Your task to perform on an android device: Open the stopwatch Image 0: 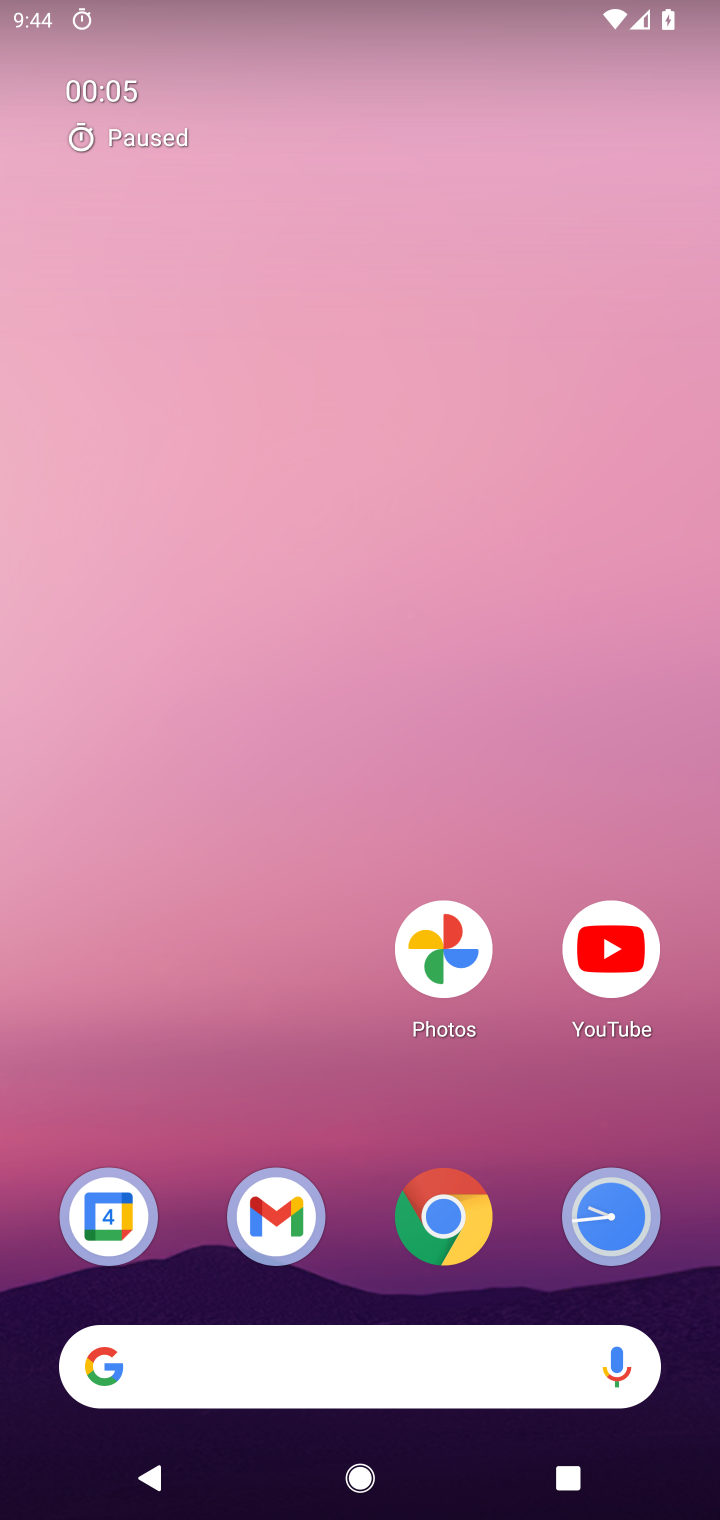
Step 0: drag from (349, 1258) to (356, 164)
Your task to perform on an android device: Open the stopwatch Image 1: 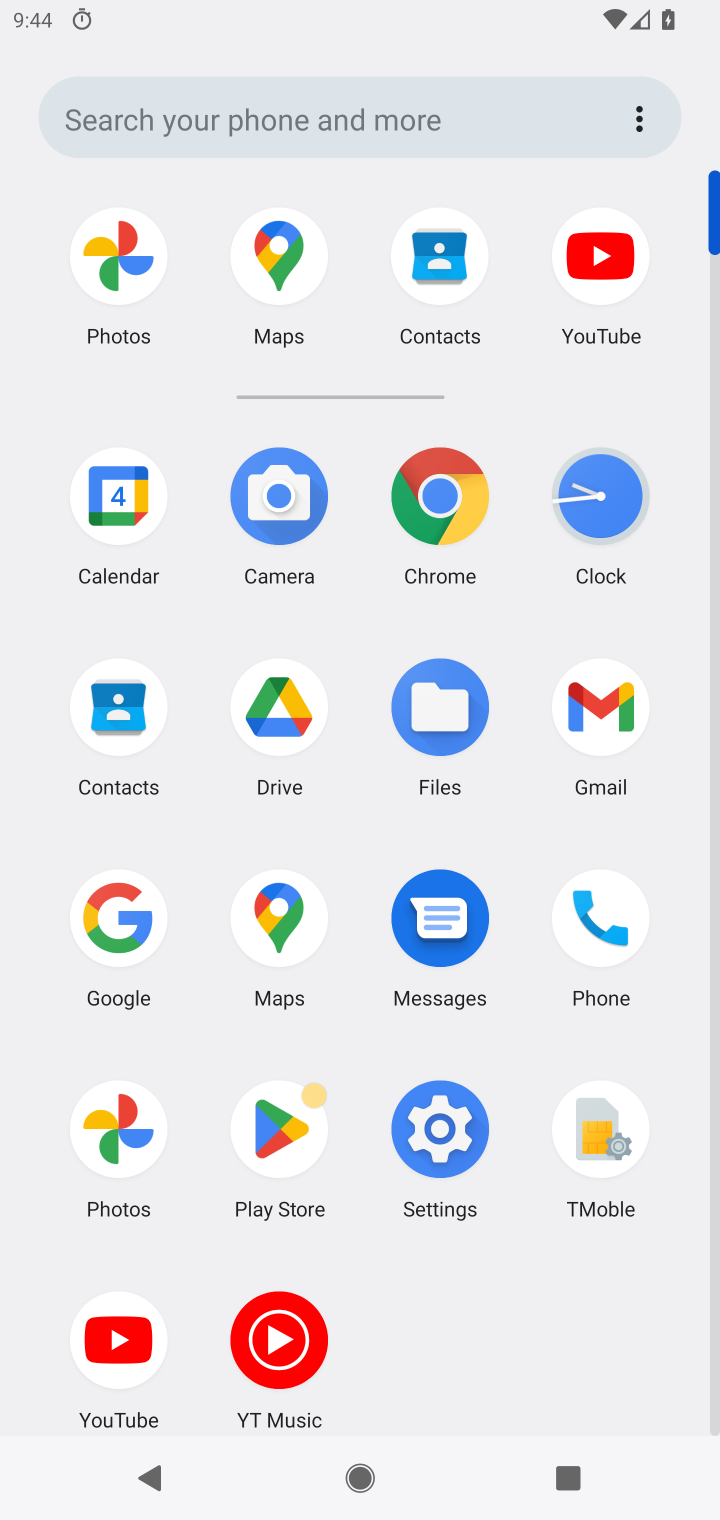
Step 1: click (585, 502)
Your task to perform on an android device: Open the stopwatch Image 2: 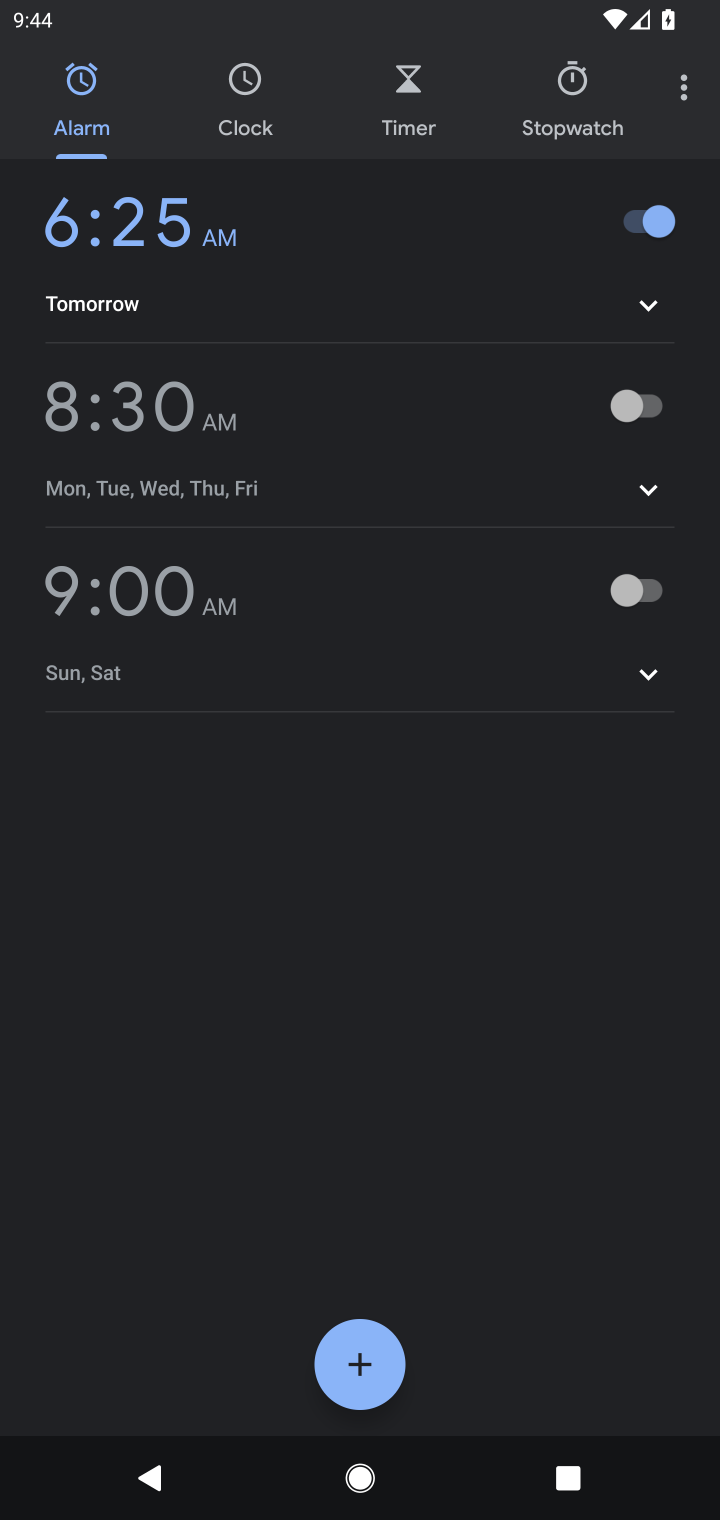
Step 2: click (570, 119)
Your task to perform on an android device: Open the stopwatch Image 3: 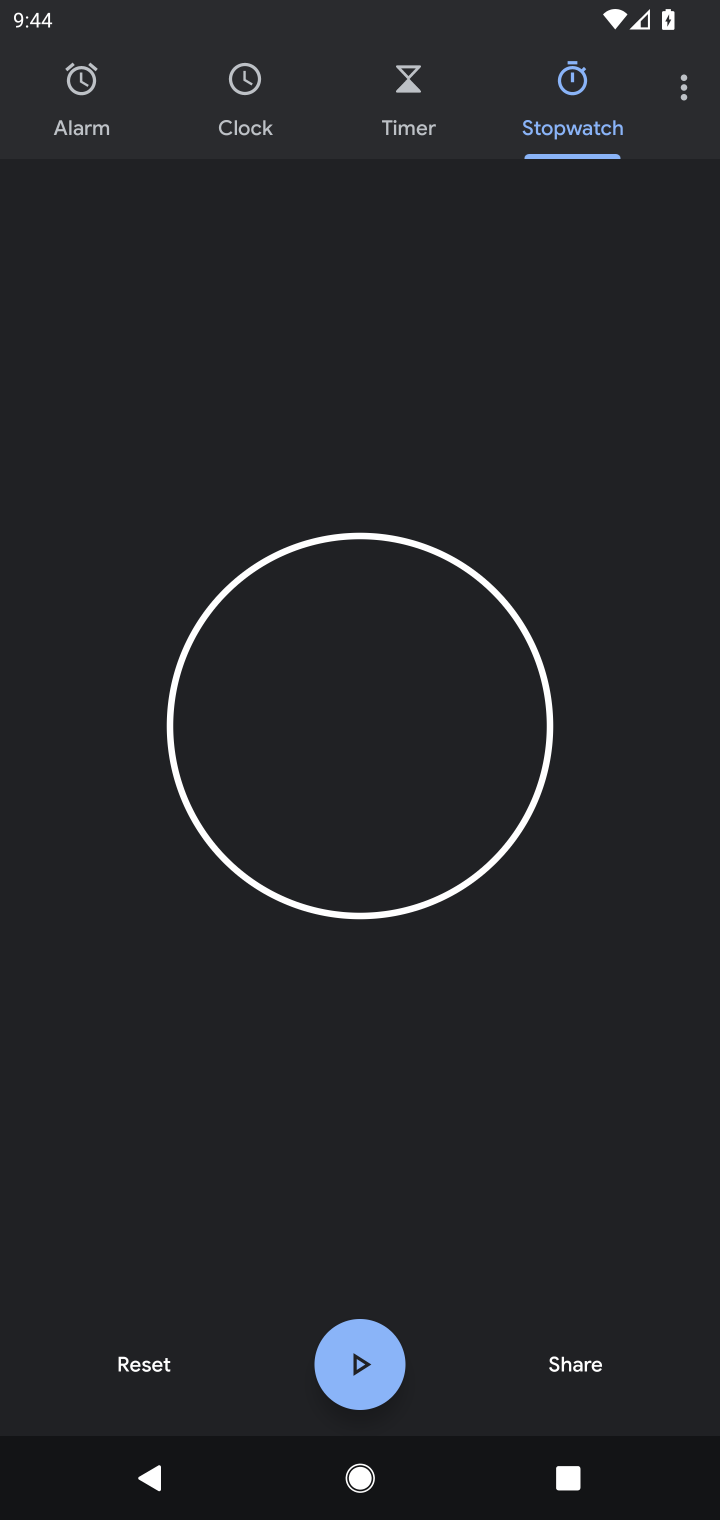
Step 3: task complete